Your task to perform on an android device: change the clock display to digital Image 0: 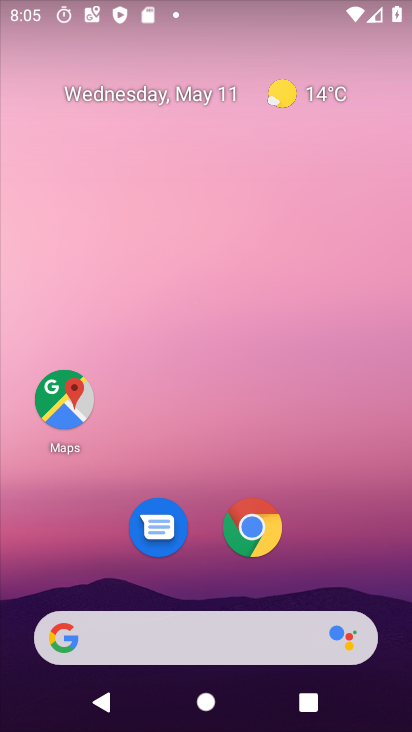
Step 0: drag from (219, 613) to (200, 136)
Your task to perform on an android device: change the clock display to digital Image 1: 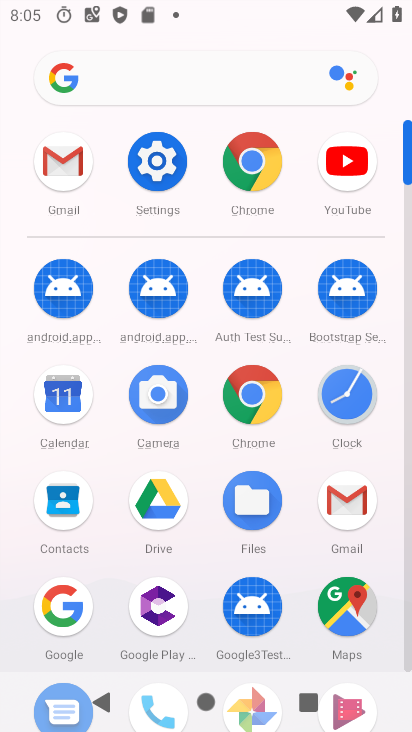
Step 1: click (364, 395)
Your task to perform on an android device: change the clock display to digital Image 2: 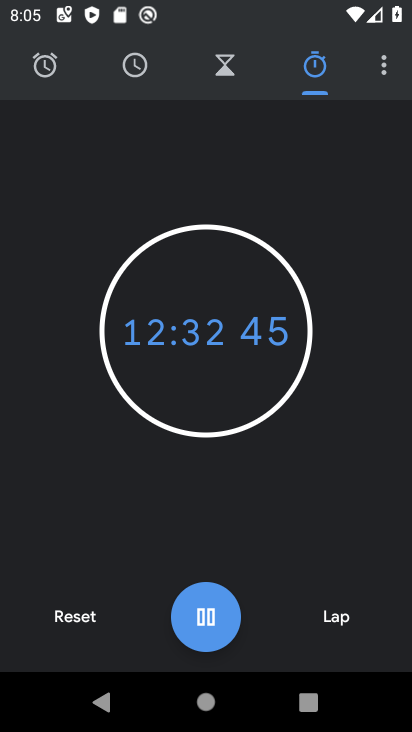
Step 2: click (387, 73)
Your task to perform on an android device: change the clock display to digital Image 3: 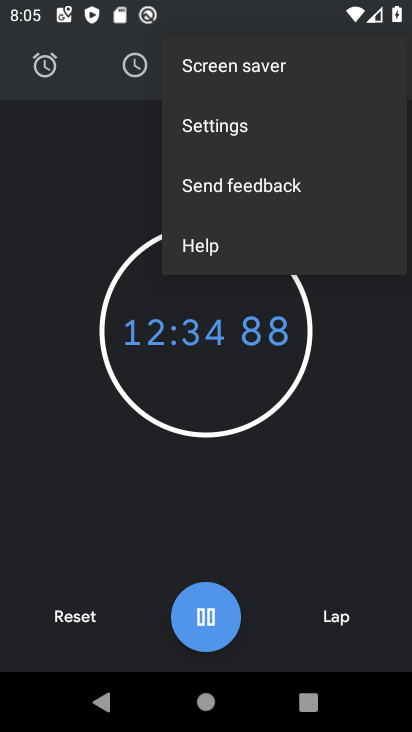
Step 3: click (241, 128)
Your task to perform on an android device: change the clock display to digital Image 4: 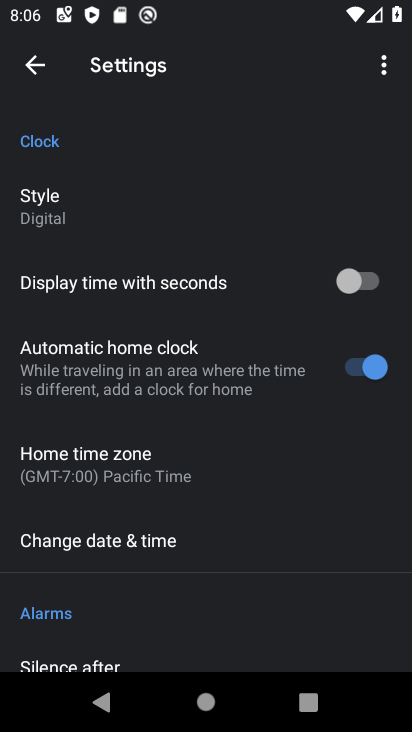
Step 4: task complete